Your task to perform on an android device: Open battery settings Image 0: 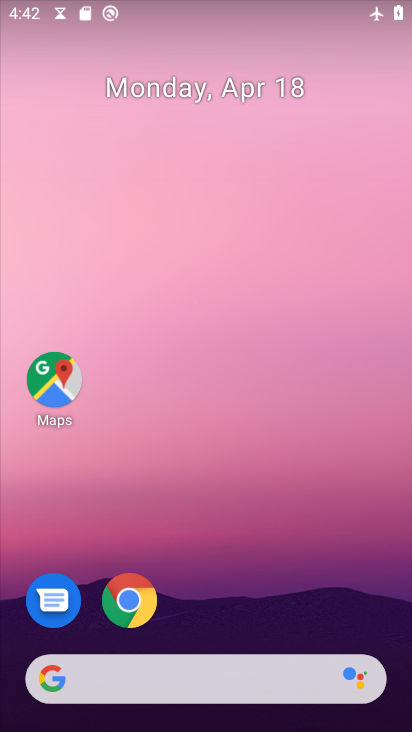
Step 0: drag from (221, 529) to (410, 118)
Your task to perform on an android device: Open battery settings Image 1: 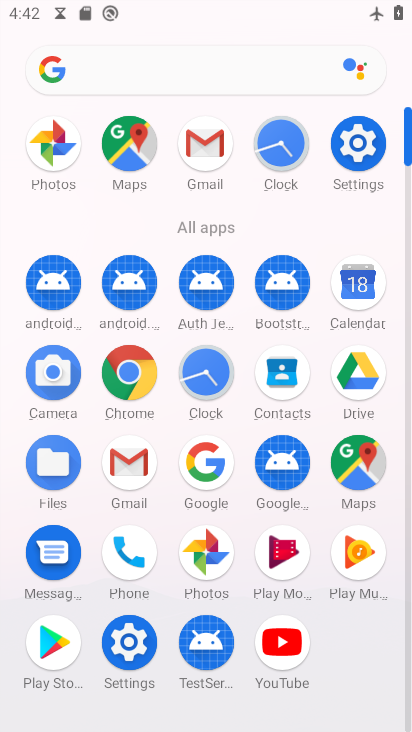
Step 1: click (372, 159)
Your task to perform on an android device: Open battery settings Image 2: 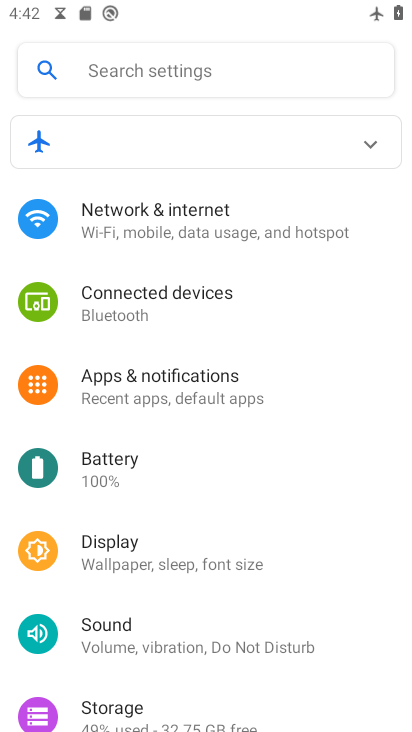
Step 2: click (125, 476)
Your task to perform on an android device: Open battery settings Image 3: 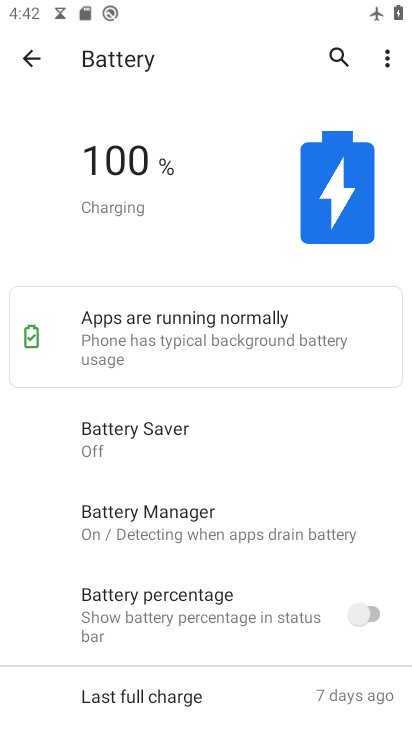
Step 3: task complete